Your task to perform on an android device: turn on notifications settings in the gmail app Image 0: 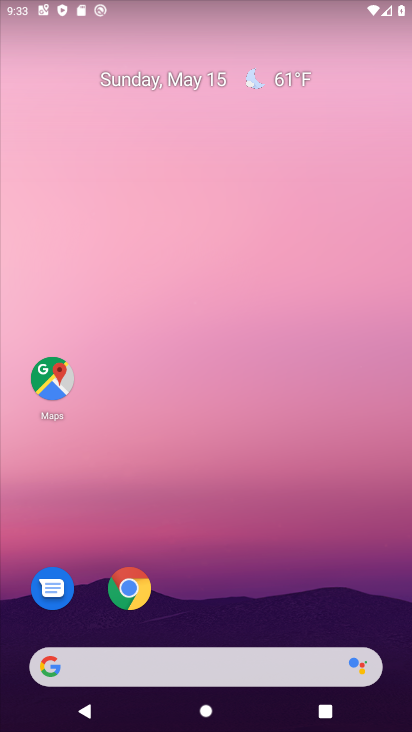
Step 0: press home button
Your task to perform on an android device: turn on notifications settings in the gmail app Image 1: 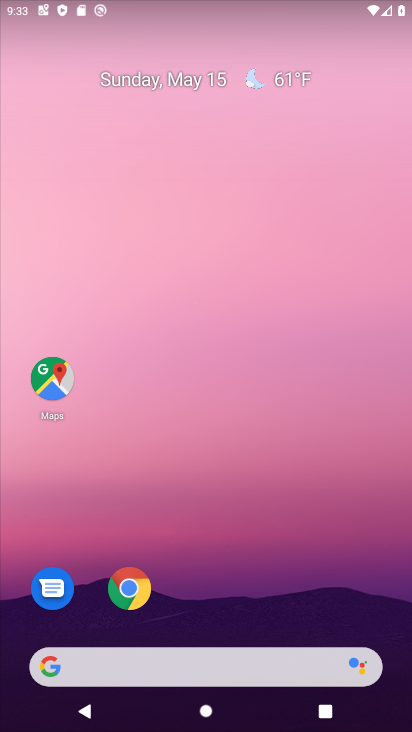
Step 1: drag from (219, 604) to (258, 94)
Your task to perform on an android device: turn on notifications settings in the gmail app Image 2: 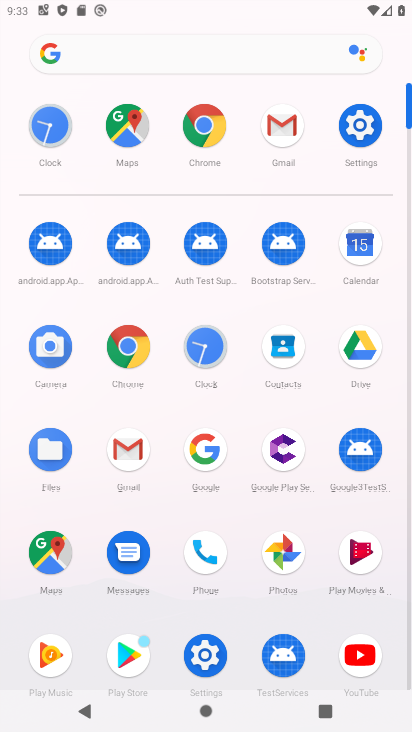
Step 2: click (119, 454)
Your task to perform on an android device: turn on notifications settings in the gmail app Image 3: 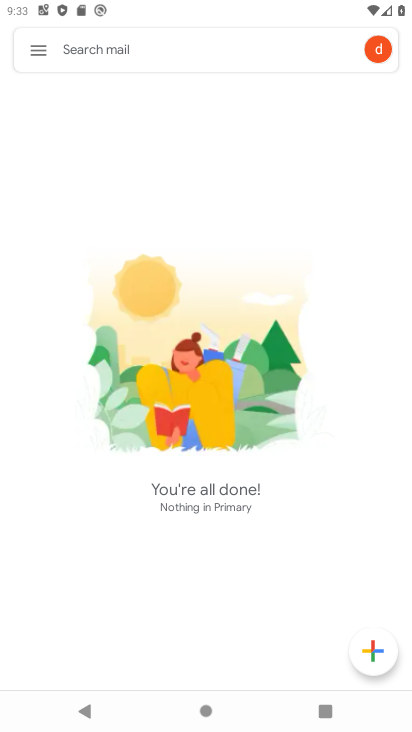
Step 3: click (36, 53)
Your task to perform on an android device: turn on notifications settings in the gmail app Image 4: 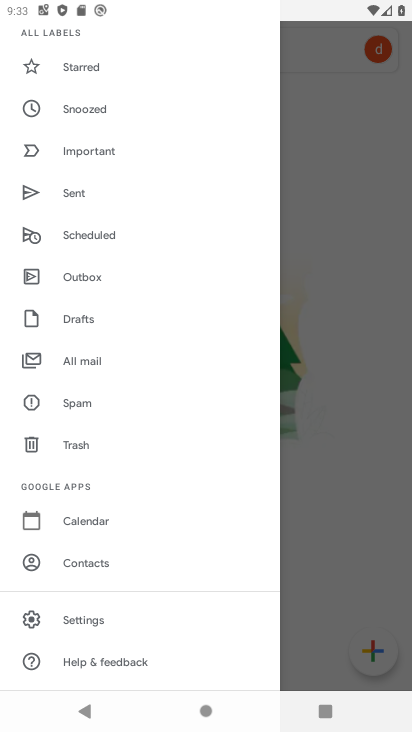
Step 4: click (93, 621)
Your task to perform on an android device: turn on notifications settings in the gmail app Image 5: 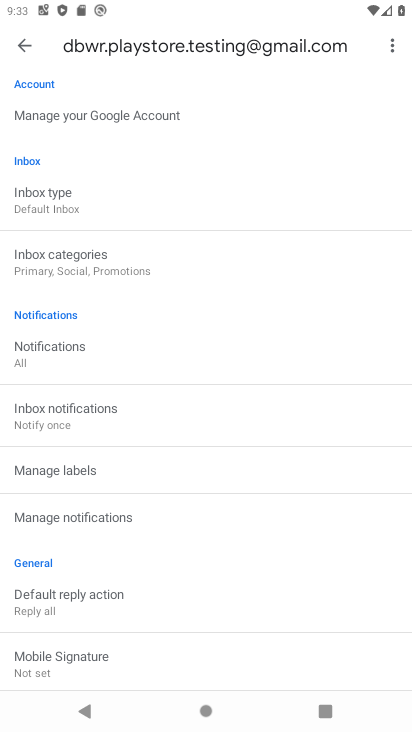
Step 5: click (26, 57)
Your task to perform on an android device: turn on notifications settings in the gmail app Image 6: 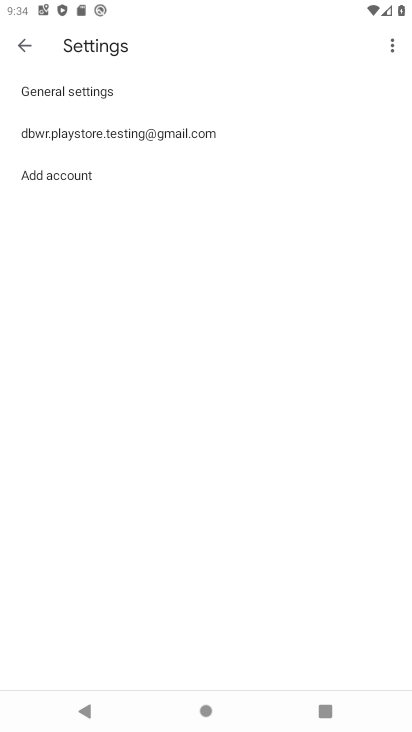
Step 6: click (115, 86)
Your task to perform on an android device: turn on notifications settings in the gmail app Image 7: 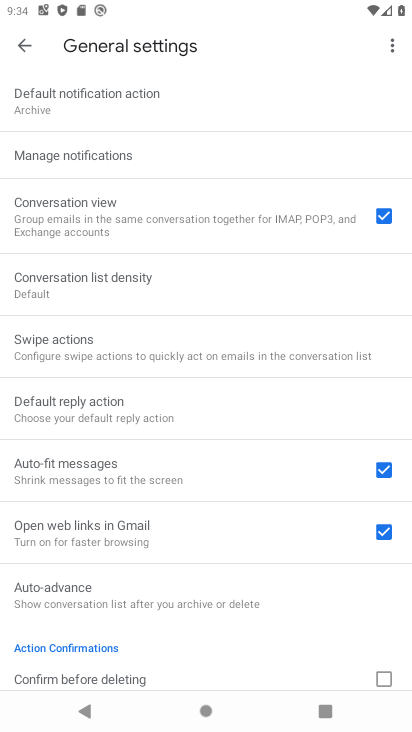
Step 7: click (131, 160)
Your task to perform on an android device: turn on notifications settings in the gmail app Image 8: 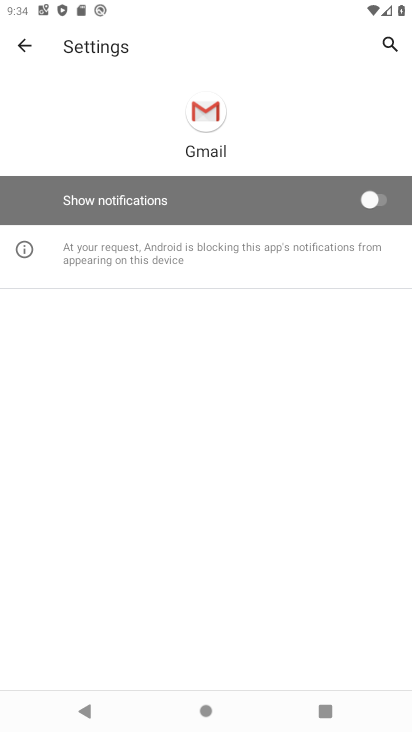
Step 8: click (376, 196)
Your task to perform on an android device: turn on notifications settings in the gmail app Image 9: 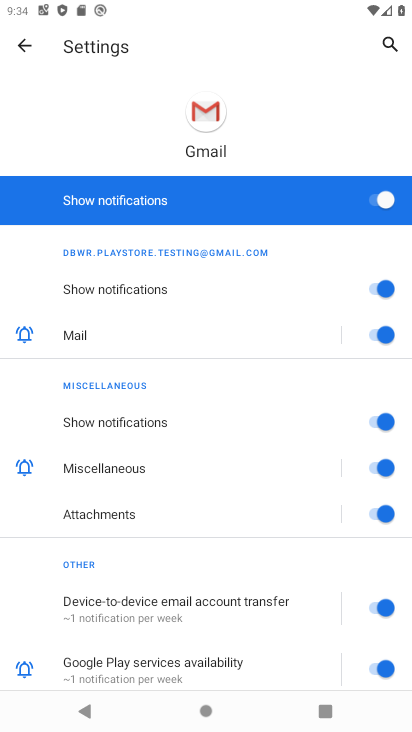
Step 9: task complete